Your task to perform on an android device: Open Google Chrome Image 0: 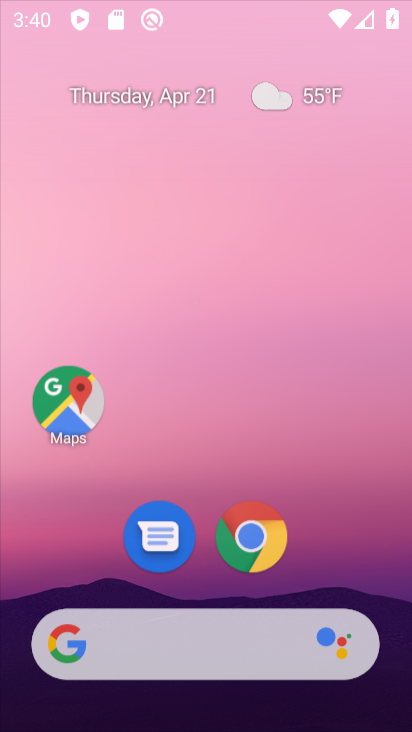
Step 0: drag from (282, 631) to (292, 60)
Your task to perform on an android device: Open Google Chrome Image 1: 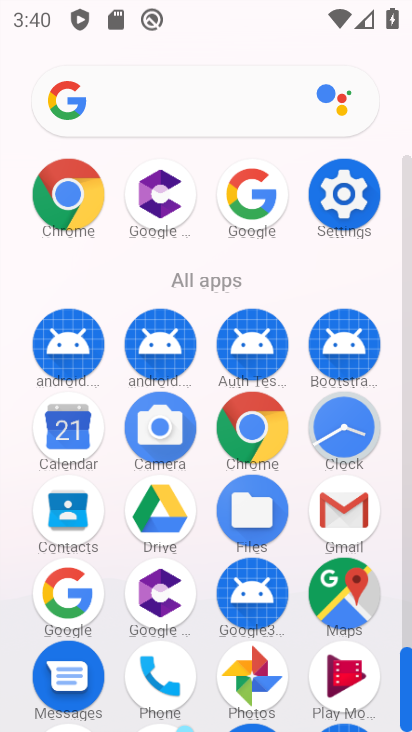
Step 1: click (86, 202)
Your task to perform on an android device: Open Google Chrome Image 2: 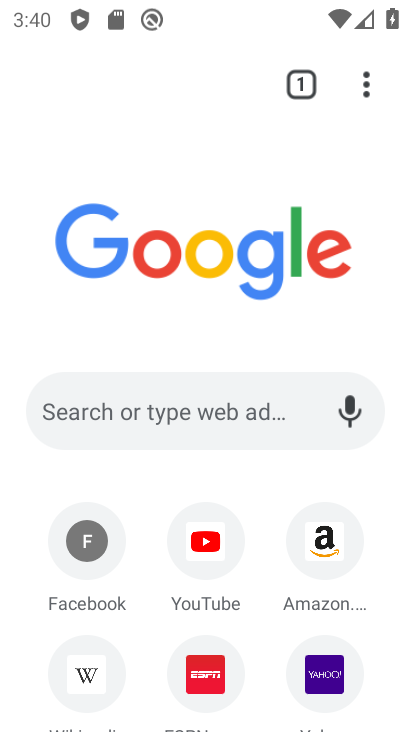
Step 2: task complete